Your task to perform on an android device: Go to network settings Image 0: 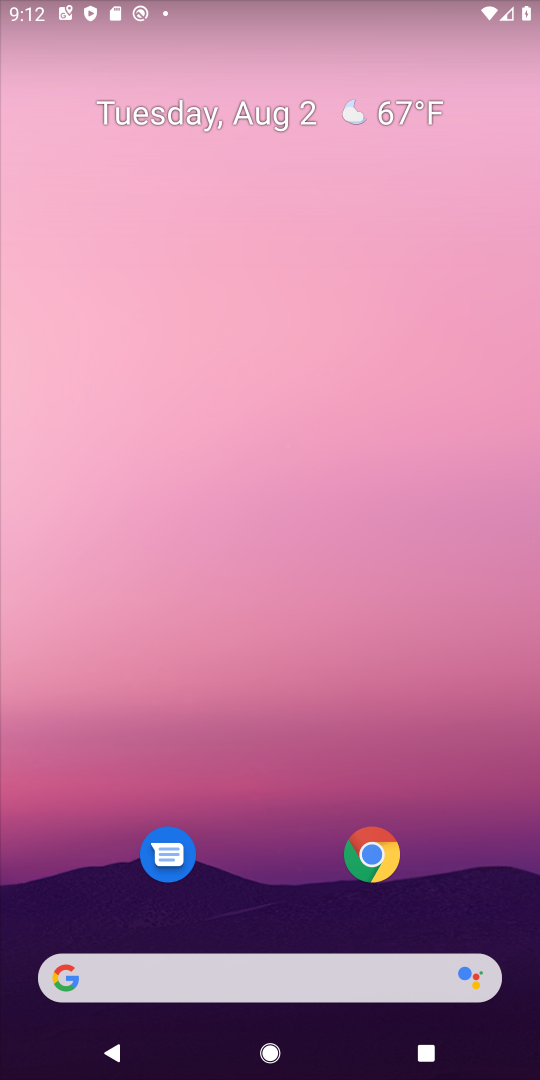
Step 0: drag from (216, 924) to (192, 128)
Your task to perform on an android device: Go to network settings Image 1: 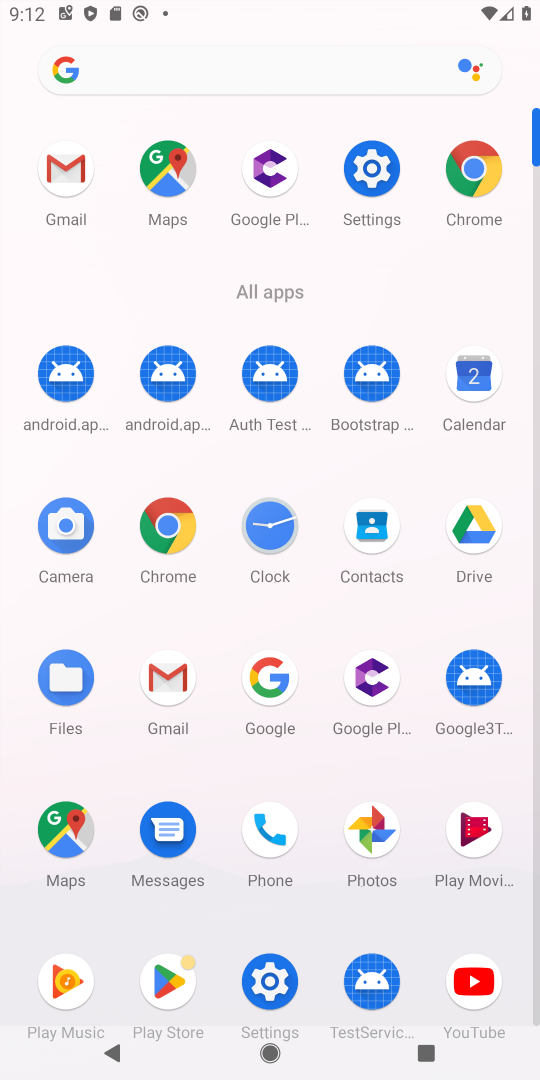
Step 1: click (361, 182)
Your task to perform on an android device: Go to network settings Image 2: 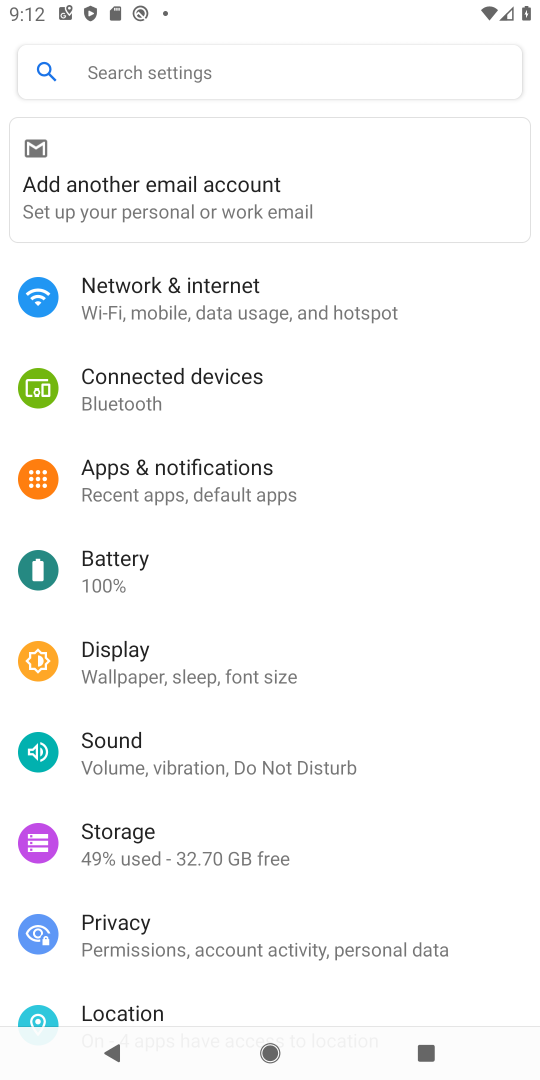
Step 2: click (169, 288)
Your task to perform on an android device: Go to network settings Image 3: 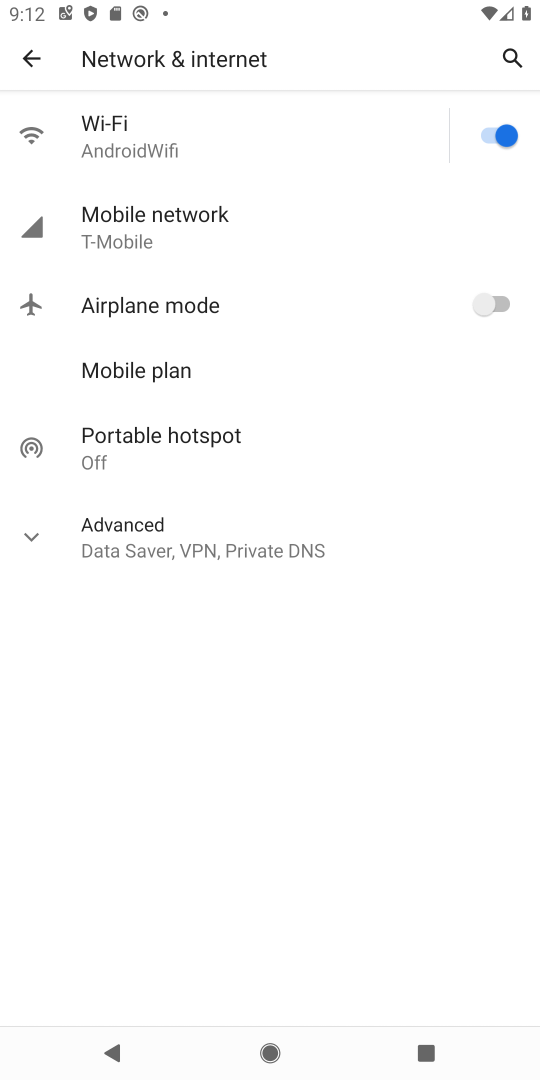
Step 3: click (161, 251)
Your task to perform on an android device: Go to network settings Image 4: 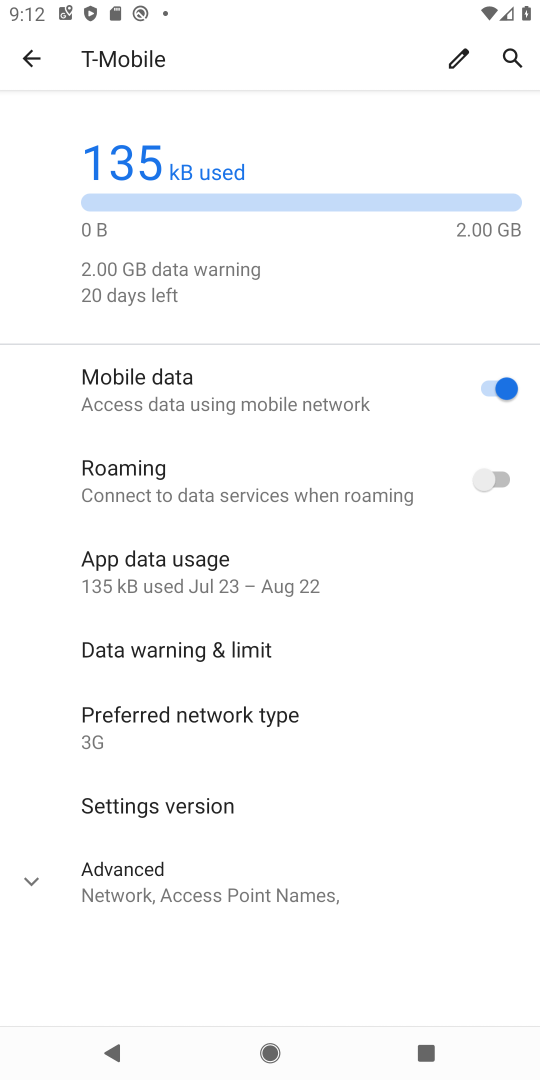
Step 4: task complete